Your task to perform on an android device: Open Youtube and go to "Your channel" Image 0: 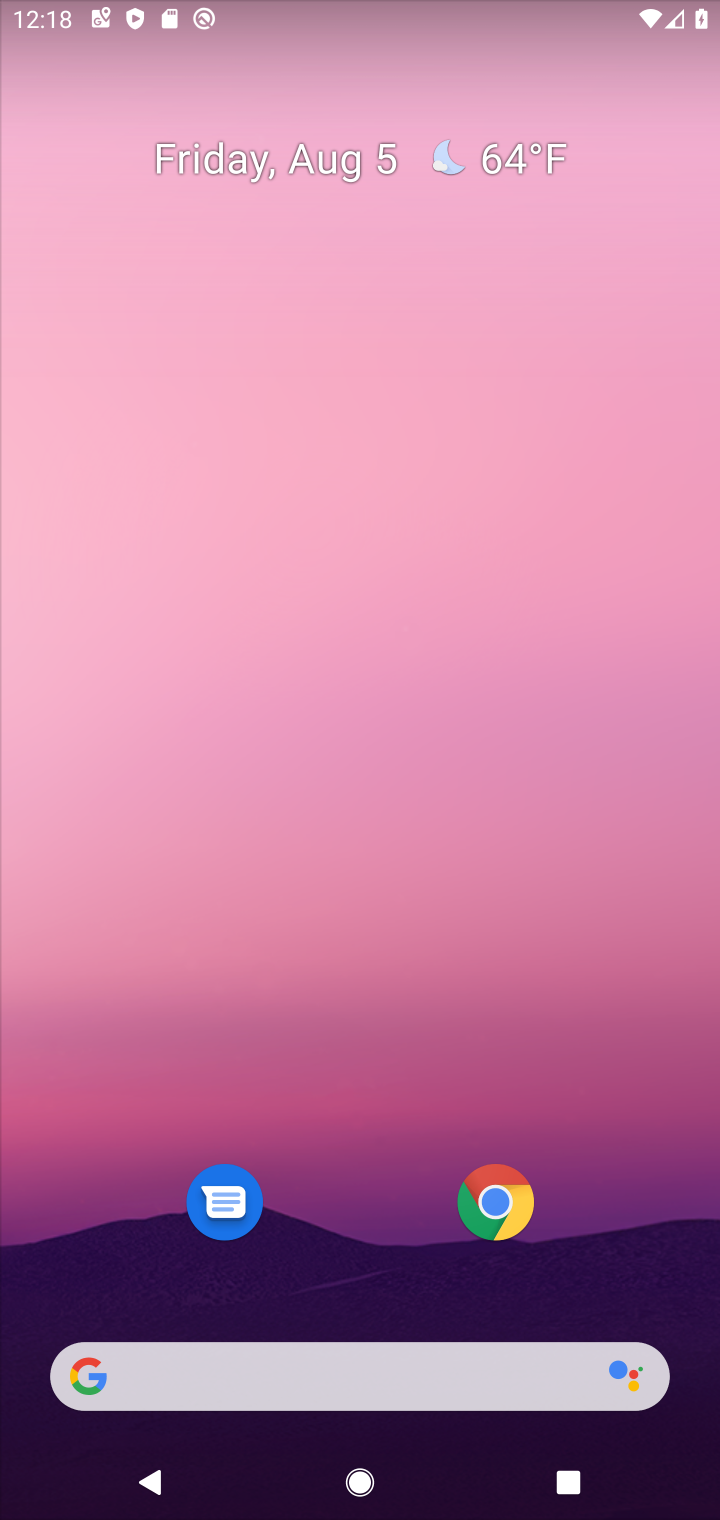
Step 0: drag from (294, 919) to (366, 95)
Your task to perform on an android device: Open Youtube and go to "Your channel" Image 1: 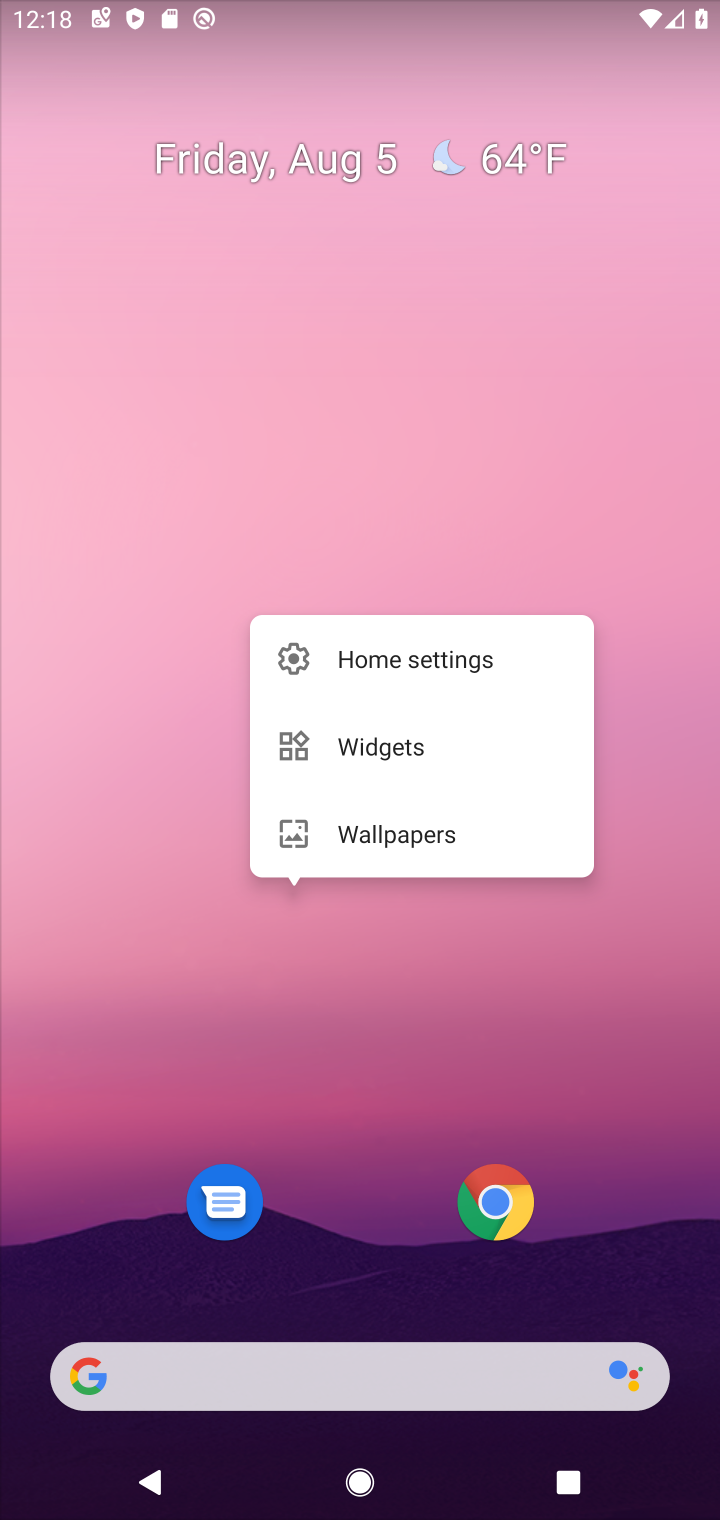
Step 1: click (112, 1035)
Your task to perform on an android device: Open Youtube and go to "Your channel" Image 2: 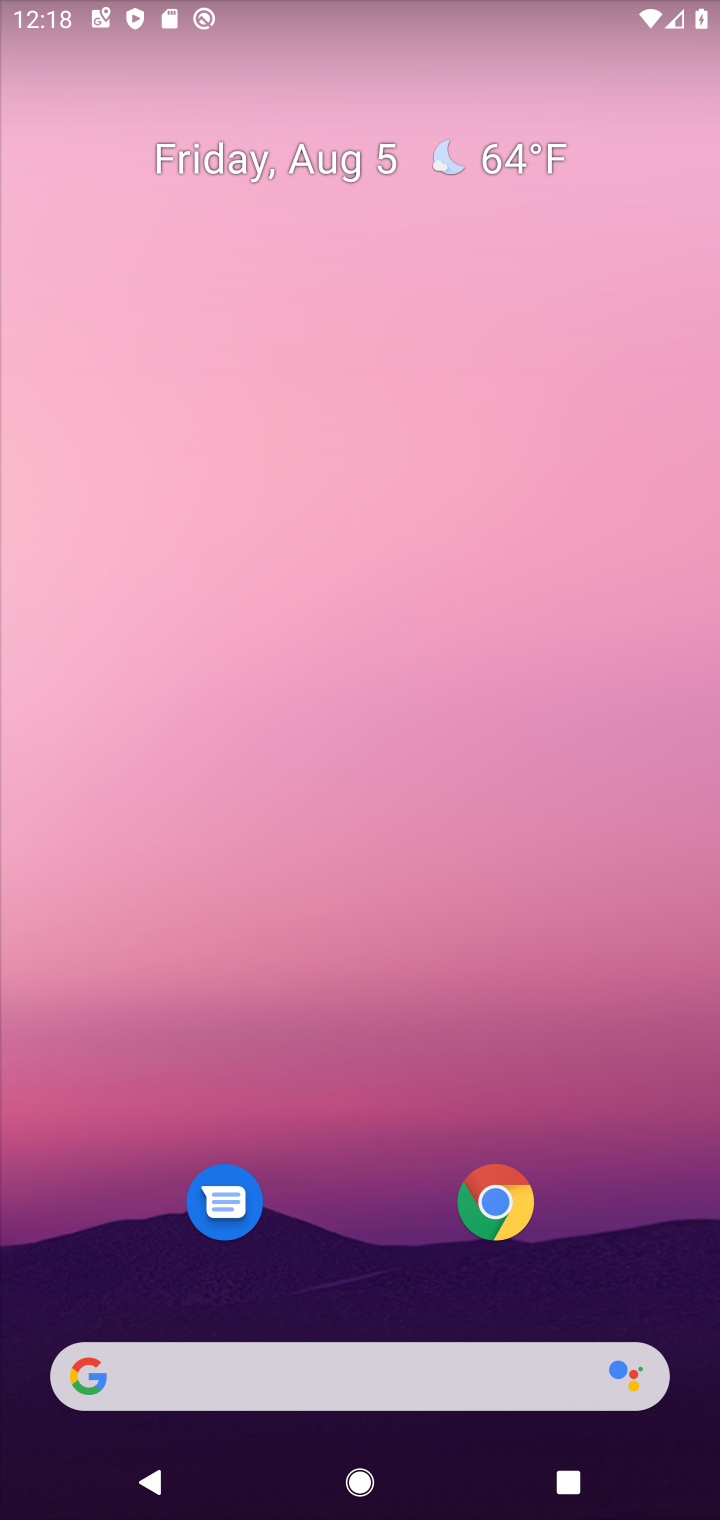
Step 2: drag from (135, 985) to (275, 1)
Your task to perform on an android device: Open Youtube and go to "Your channel" Image 3: 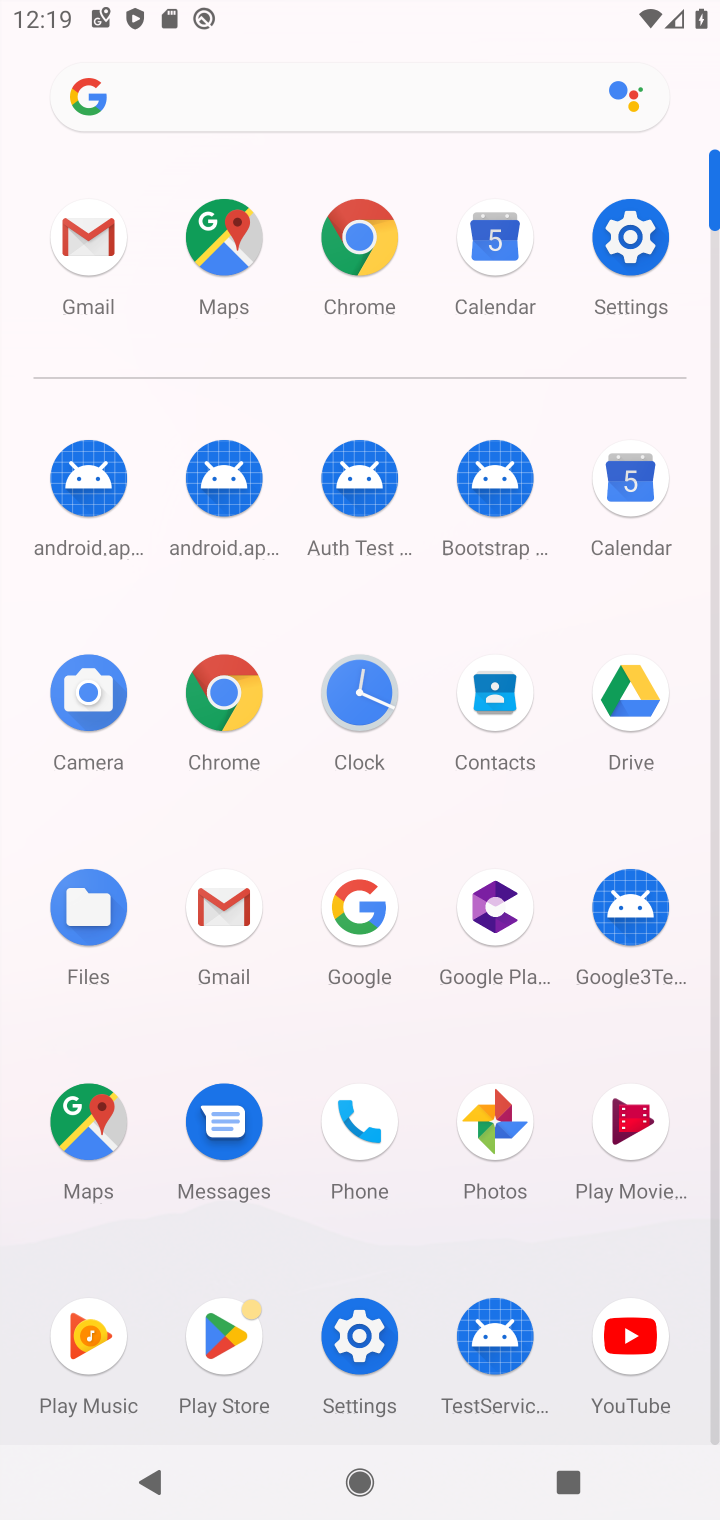
Step 3: click (631, 1349)
Your task to perform on an android device: Open Youtube and go to "Your channel" Image 4: 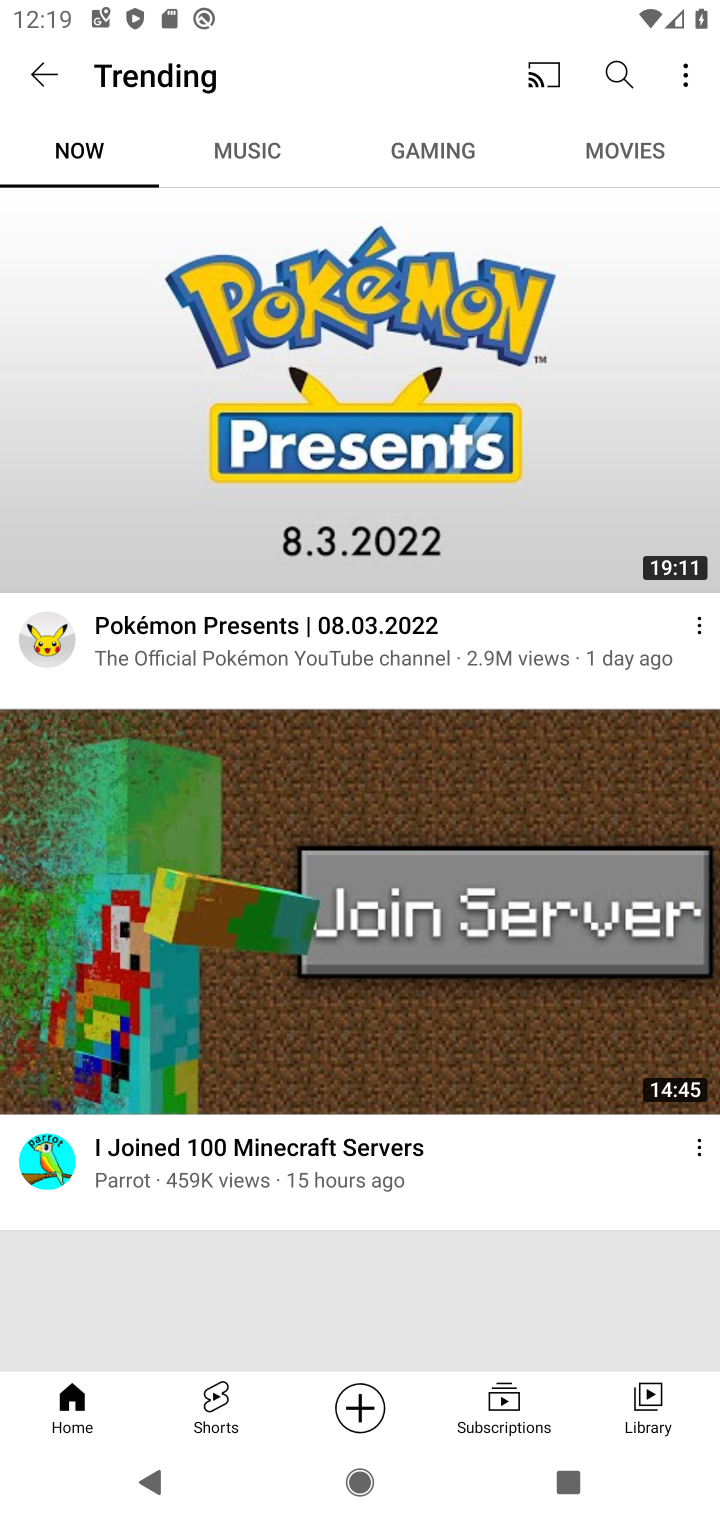
Step 4: click (658, 1419)
Your task to perform on an android device: Open Youtube and go to "Your channel" Image 5: 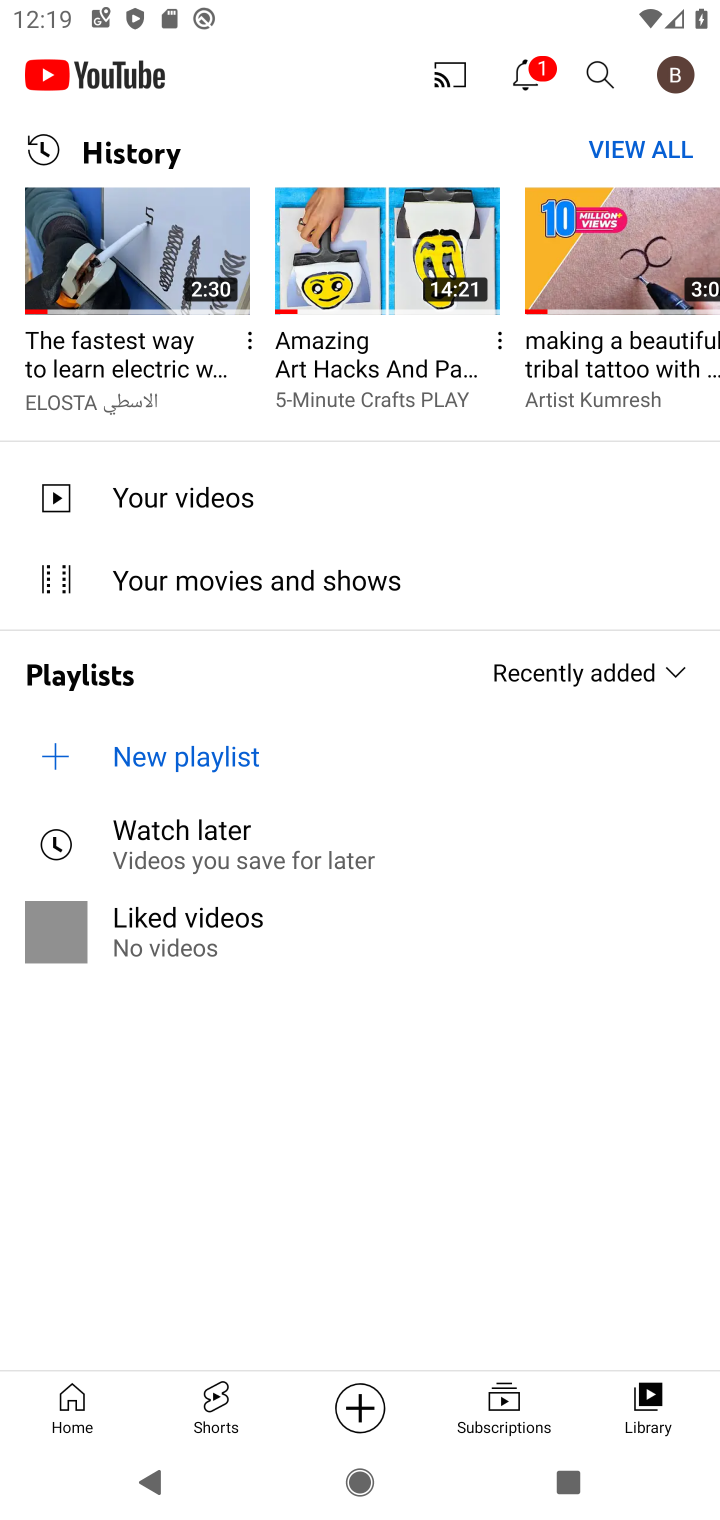
Step 5: click (677, 56)
Your task to perform on an android device: Open Youtube and go to "Your channel" Image 6: 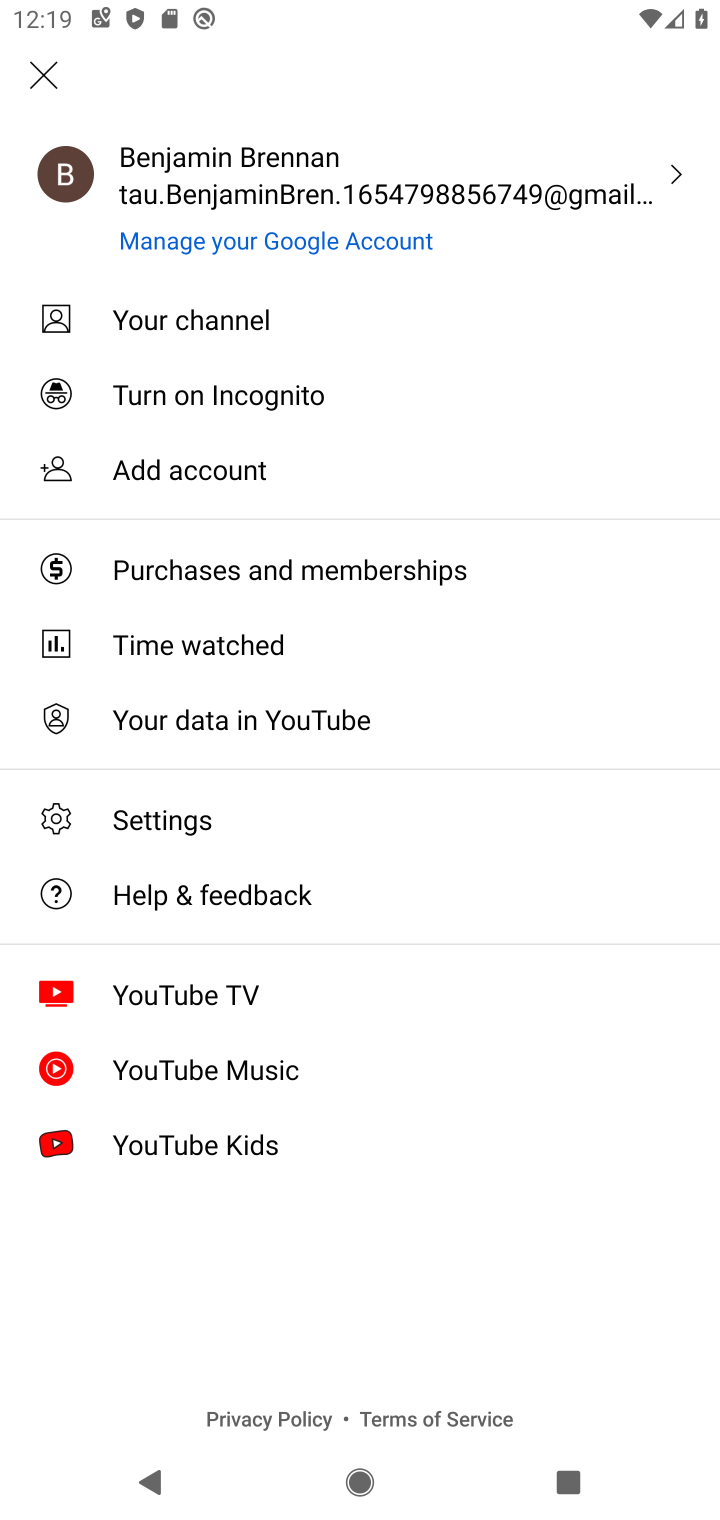
Step 6: click (204, 345)
Your task to perform on an android device: Open Youtube and go to "Your channel" Image 7: 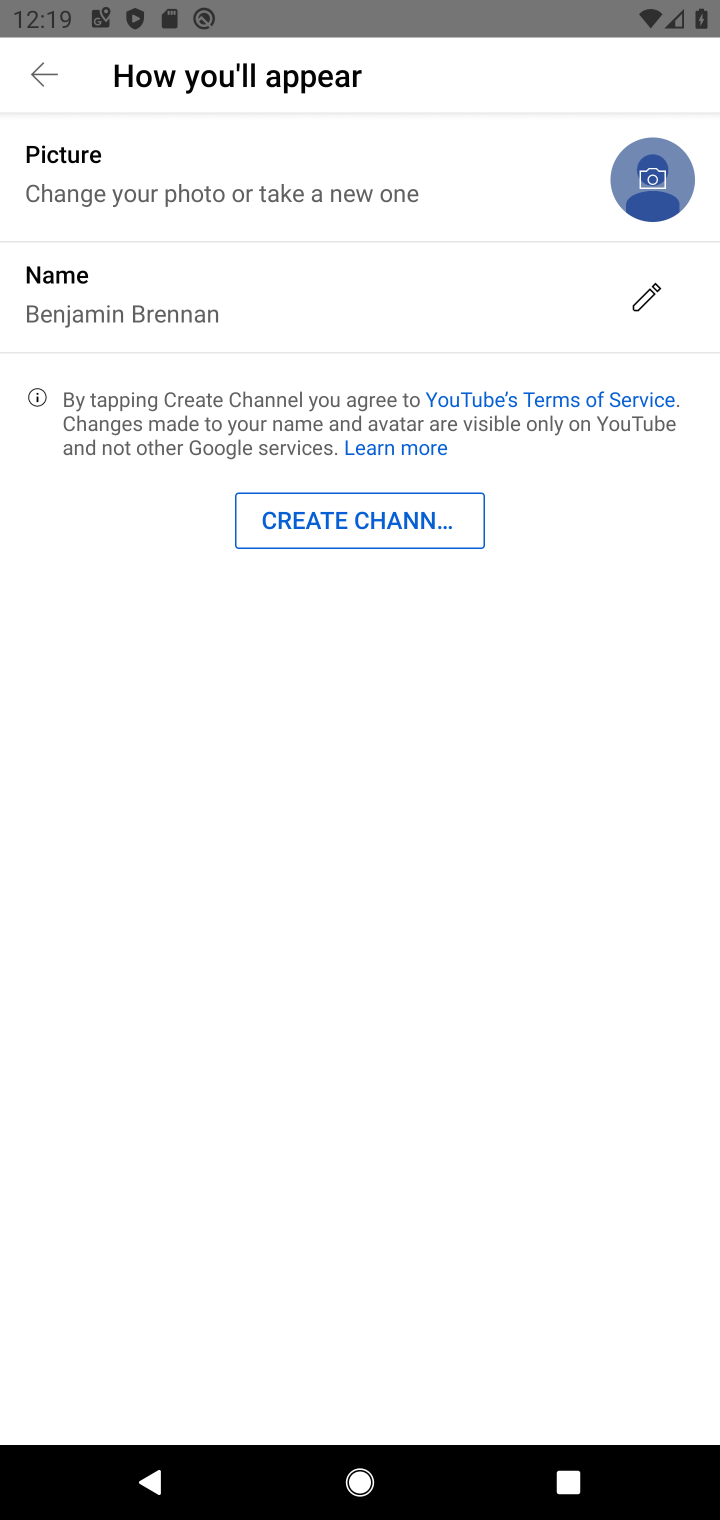
Step 7: task complete